Your task to perform on an android device: toggle show notifications on the lock screen Image 0: 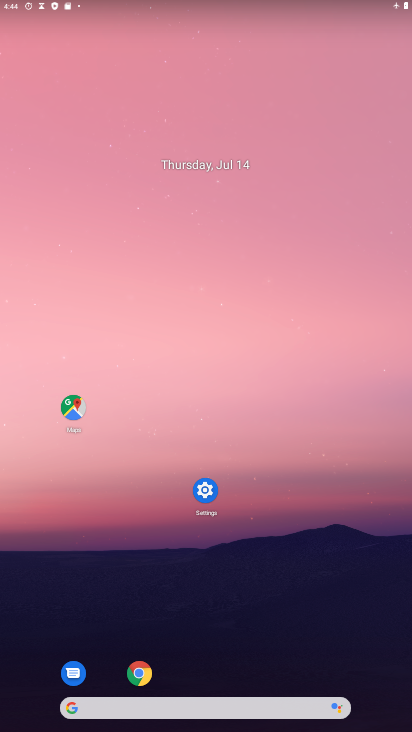
Step 0: drag from (183, 468) to (175, 29)
Your task to perform on an android device: toggle show notifications on the lock screen Image 1: 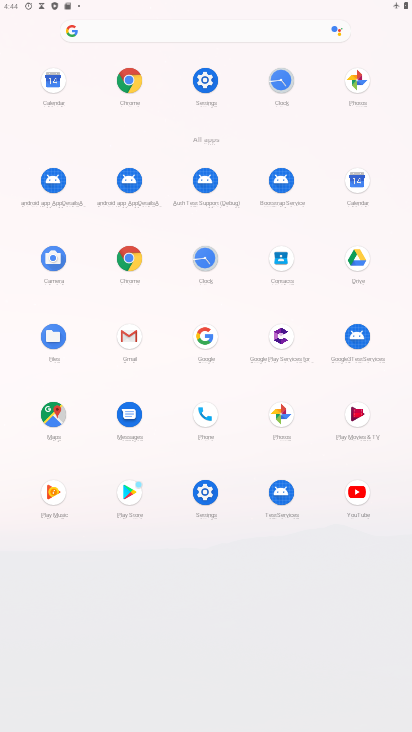
Step 1: click (211, 491)
Your task to perform on an android device: toggle show notifications on the lock screen Image 2: 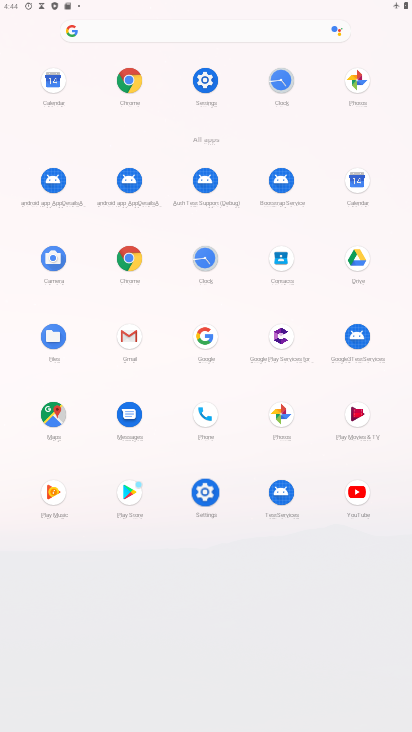
Step 2: click (211, 473)
Your task to perform on an android device: toggle show notifications on the lock screen Image 3: 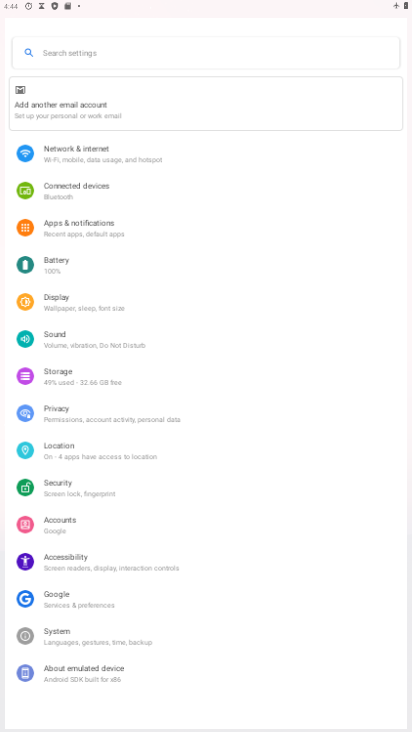
Step 3: click (211, 478)
Your task to perform on an android device: toggle show notifications on the lock screen Image 4: 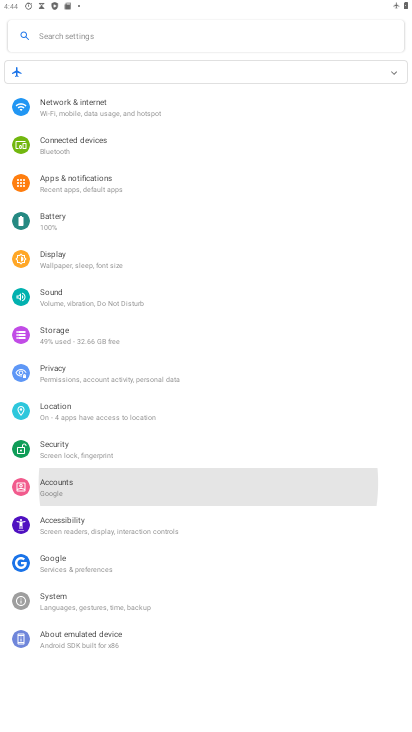
Step 4: click (212, 481)
Your task to perform on an android device: toggle show notifications on the lock screen Image 5: 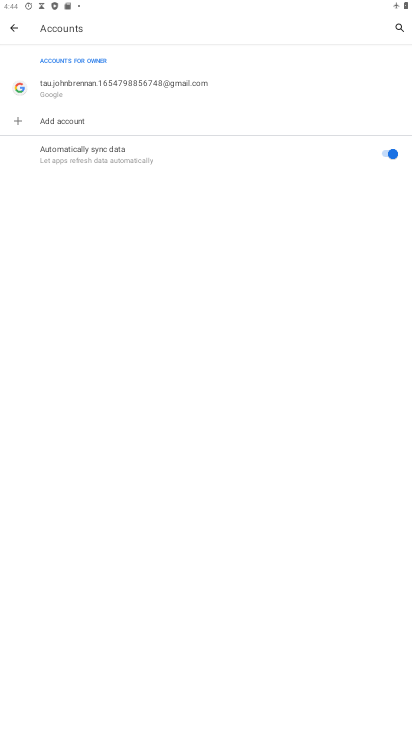
Step 5: click (11, 28)
Your task to perform on an android device: toggle show notifications on the lock screen Image 6: 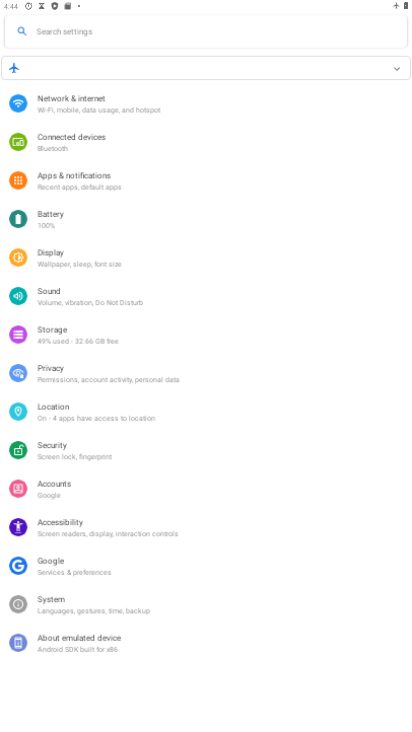
Step 6: click (12, 27)
Your task to perform on an android device: toggle show notifications on the lock screen Image 7: 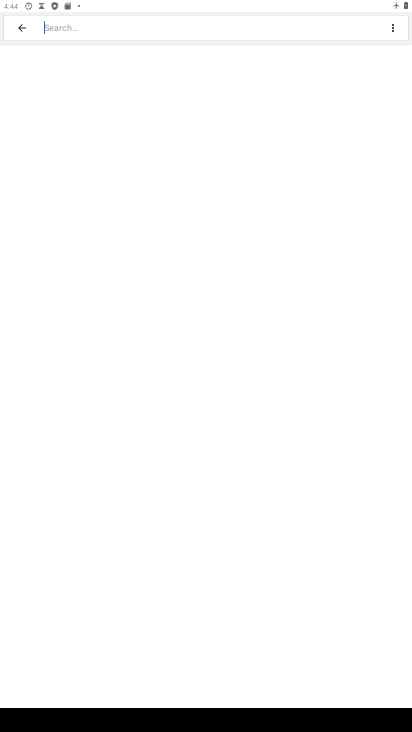
Step 7: click (26, 32)
Your task to perform on an android device: toggle show notifications on the lock screen Image 8: 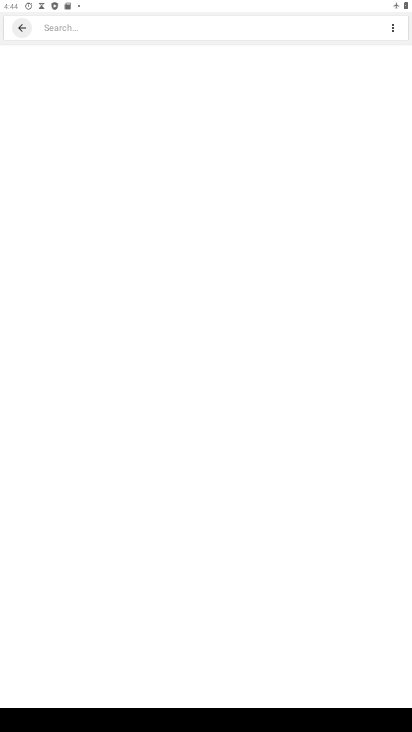
Step 8: click (25, 30)
Your task to perform on an android device: toggle show notifications on the lock screen Image 9: 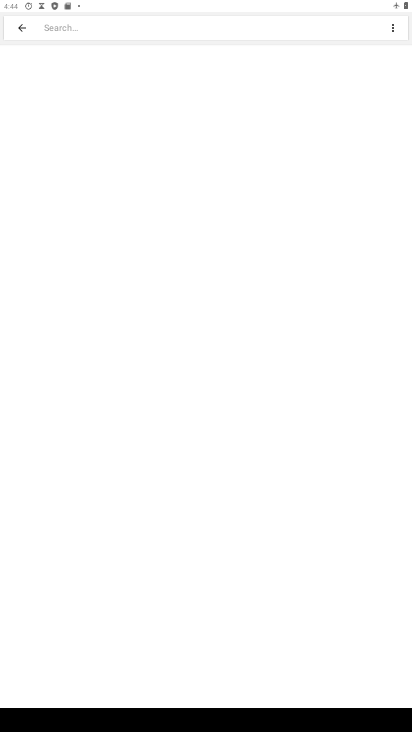
Step 9: click (25, 30)
Your task to perform on an android device: toggle show notifications on the lock screen Image 10: 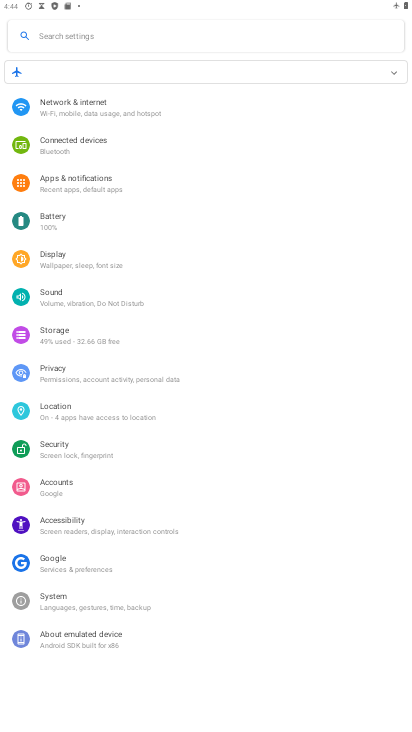
Step 10: click (69, 183)
Your task to perform on an android device: toggle show notifications on the lock screen Image 11: 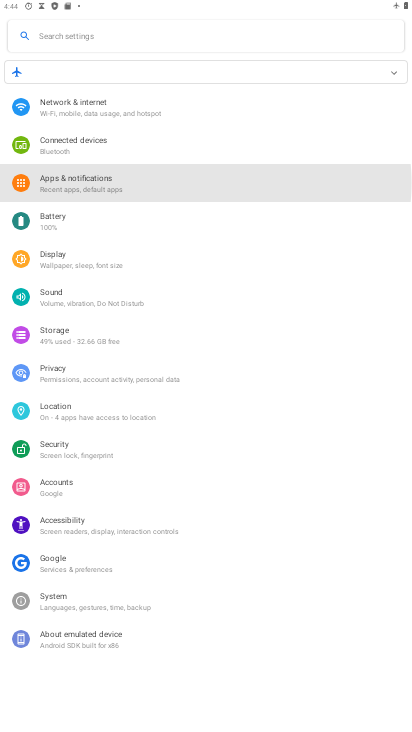
Step 11: click (77, 193)
Your task to perform on an android device: toggle show notifications on the lock screen Image 12: 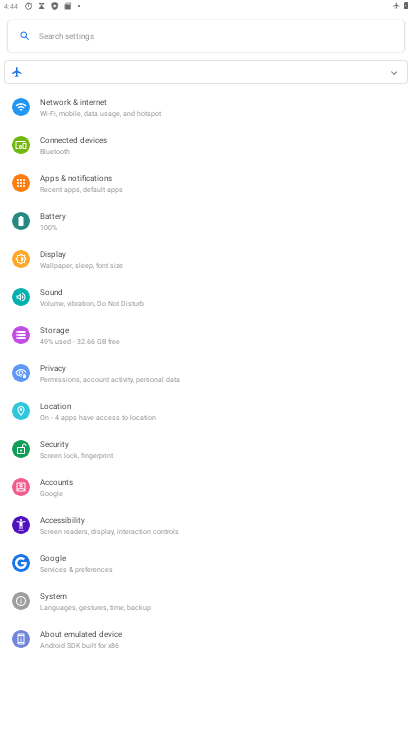
Step 12: click (81, 181)
Your task to perform on an android device: toggle show notifications on the lock screen Image 13: 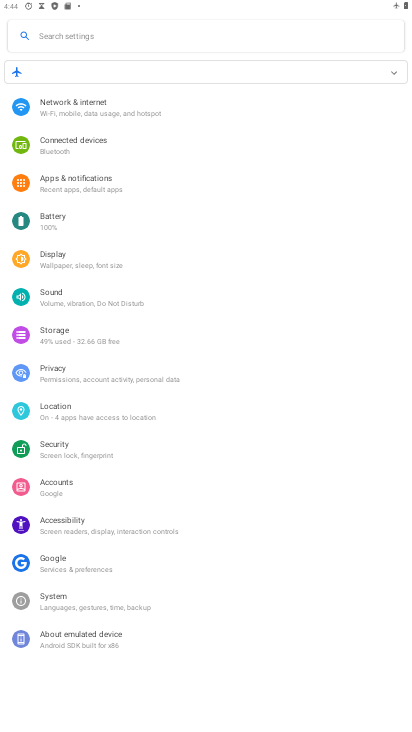
Step 13: click (82, 181)
Your task to perform on an android device: toggle show notifications on the lock screen Image 14: 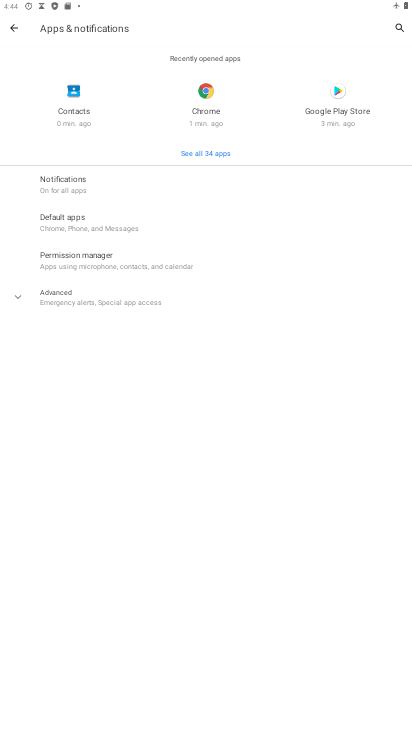
Step 14: click (60, 188)
Your task to perform on an android device: toggle show notifications on the lock screen Image 15: 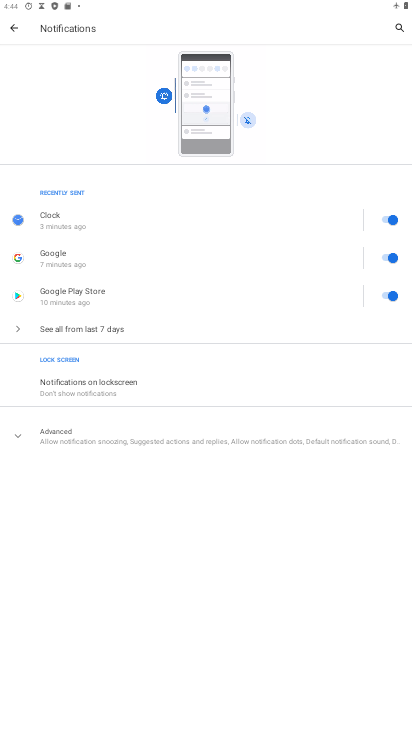
Step 15: click (106, 393)
Your task to perform on an android device: toggle show notifications on the lock screen Image 16: 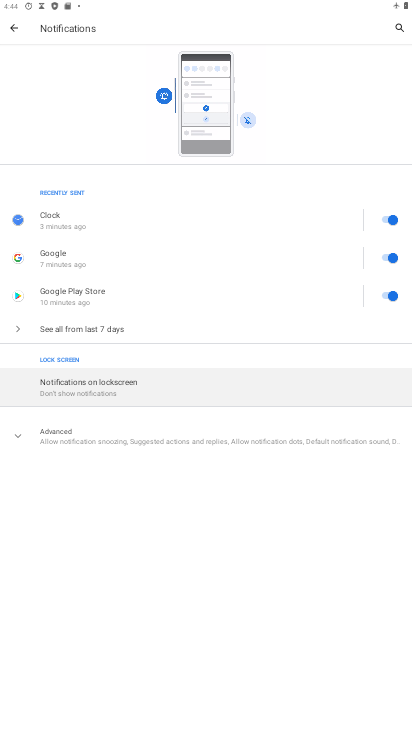
Step 16: click (105, 392)
Your task to perform on an android device: toggle show notifications on the lock screen Image 17: 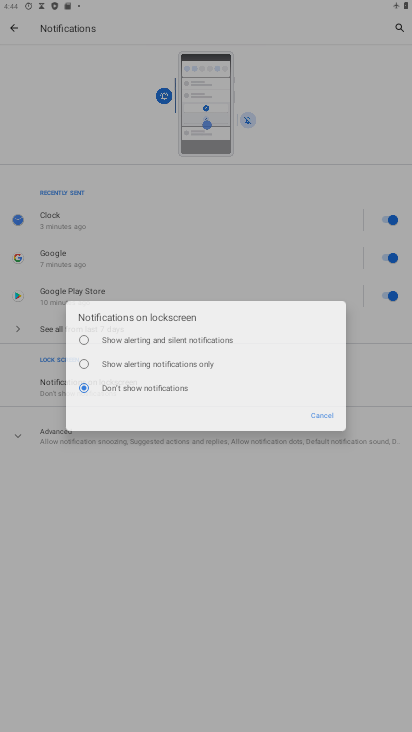
Step 17: click (105, 392)
Your task to perform on an android device: toggle show notifications on the lock screen Image 18: 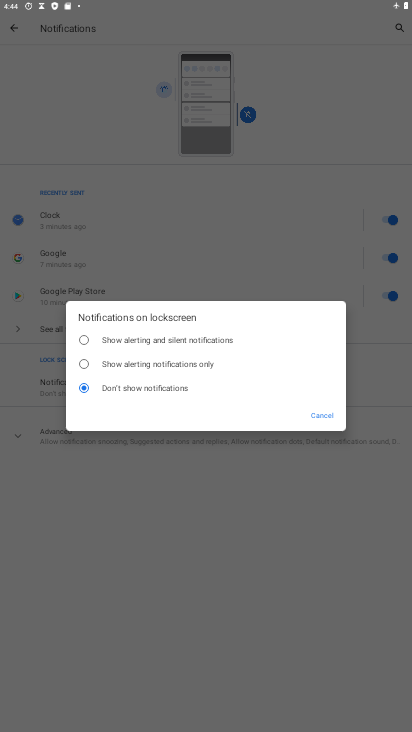
Step 18: click (84, 365)
Your task to perform on an android device: toggle show notifications on the lock screen Image 19: 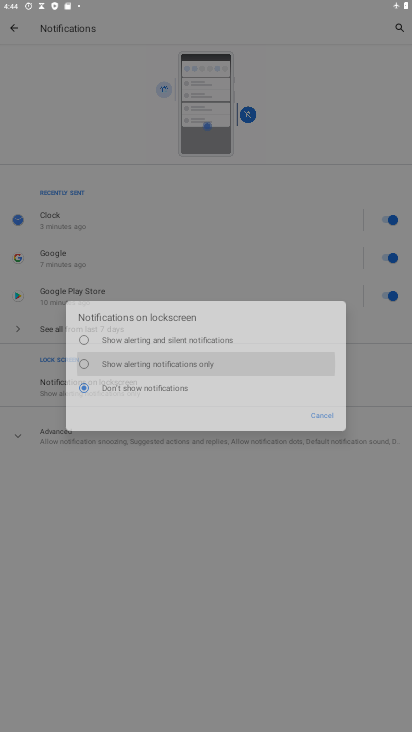
Step 19: click (83, 364)
Your task to perform on an android device: toggle show notifications on the lock screen Image 20: 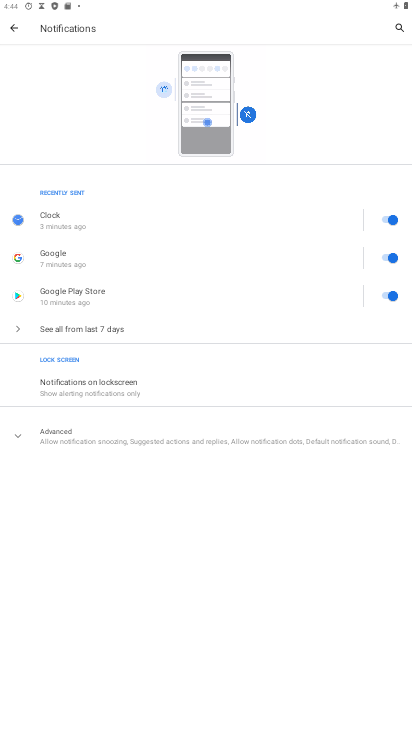
Step 20: click (83, 364)
Your task to perform on an android device: toggle show notifications on the lock screen Image 21: 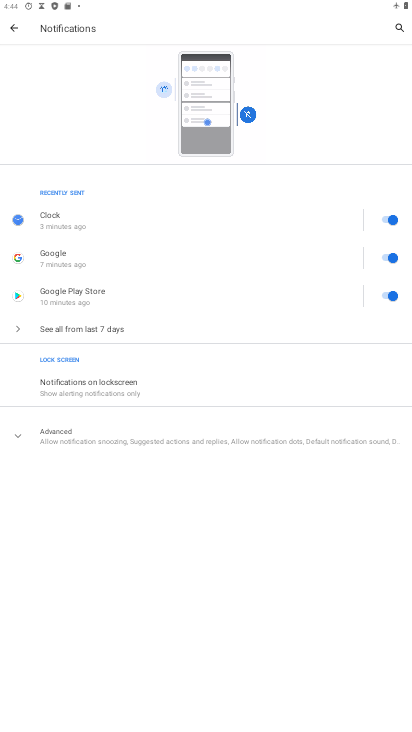
Step 21: click (83, 364)
Your task to perform on an android device: toggle show notifications on the lock screen Image 22: 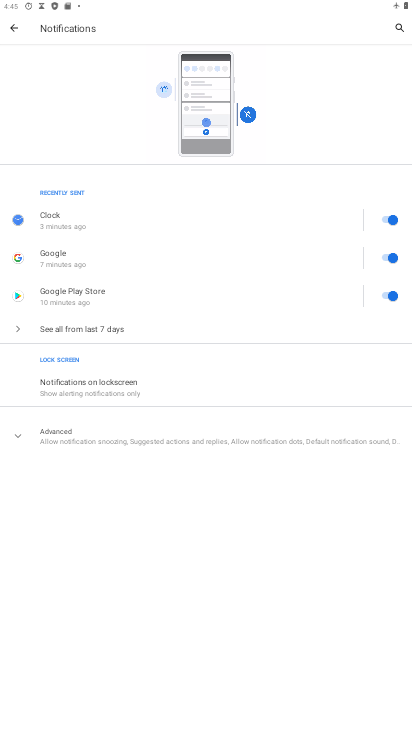
Step 22: task complete